Your task to perform on an android device: check out phone information Image 0: 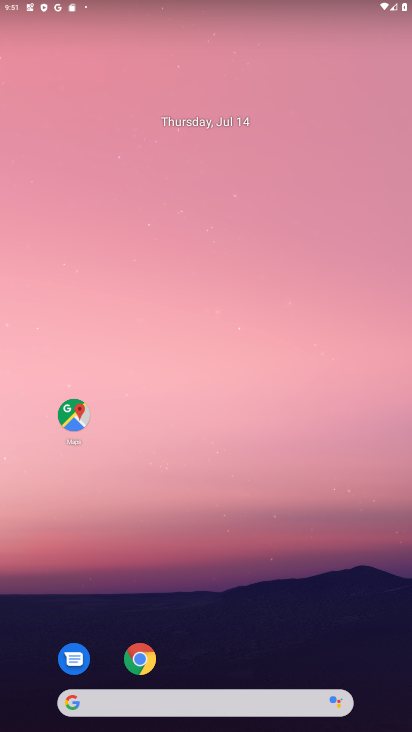
Step 0: drag from (330, 604) to (260, 144)
Your task to perform on an android device: check out phone information Image 1: 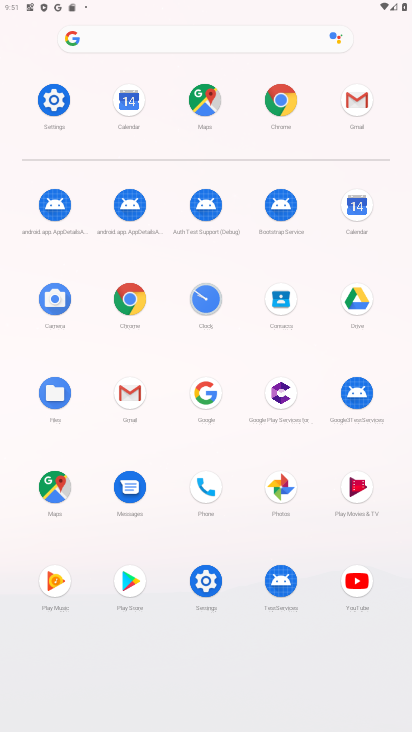
Step 1: click (205, 489)
Your task to perform on an android device: check out phone information Image 2: 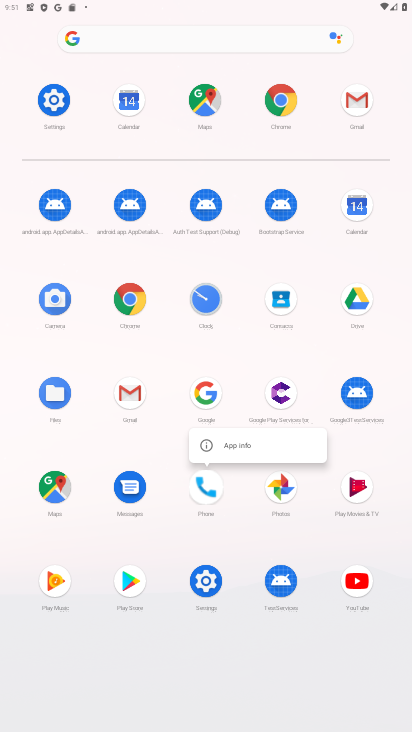
Step 2: click (231, 440)
Your task to perform on an android device: check out phone information Image 3: 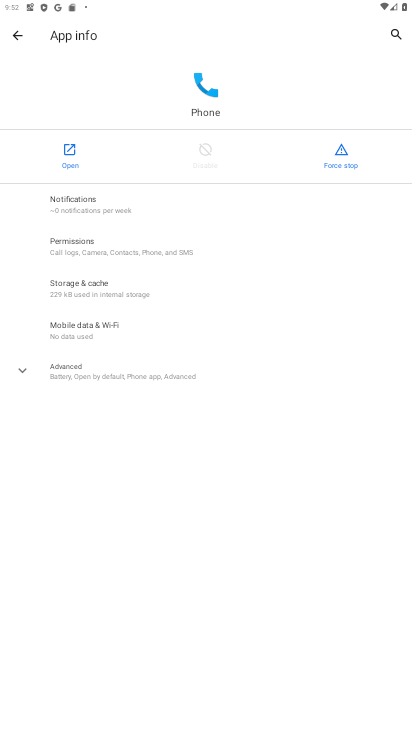
Step 3: click (198, 376)
Your task to perform on an android device: check out phone information Image 4: 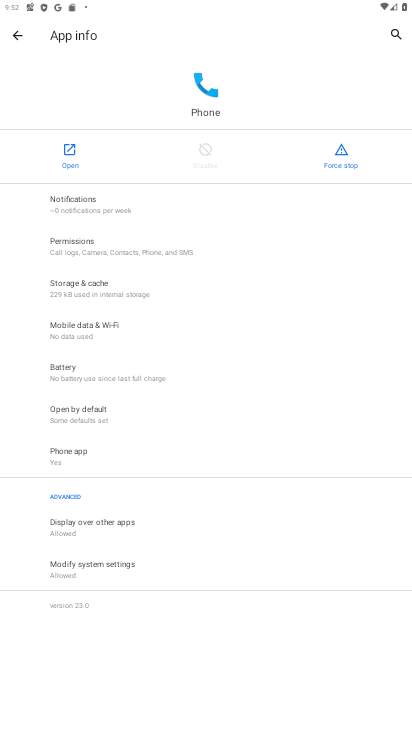
Step 4: task complete